Your task to perform on an android device: Open the calendar app, open the side menu, and click the "Day" option Image 0: 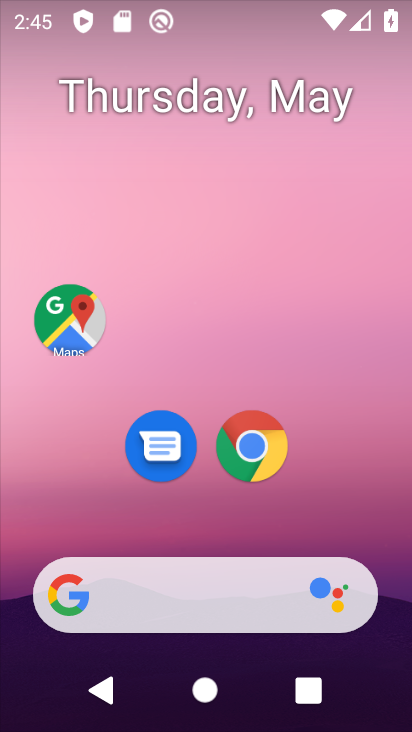
Step 0: drag from (372, 559) to (312, 5)
Your task to perform on an android device: Open the calendar app, open the side menu, and click the "Day" option Image 1: 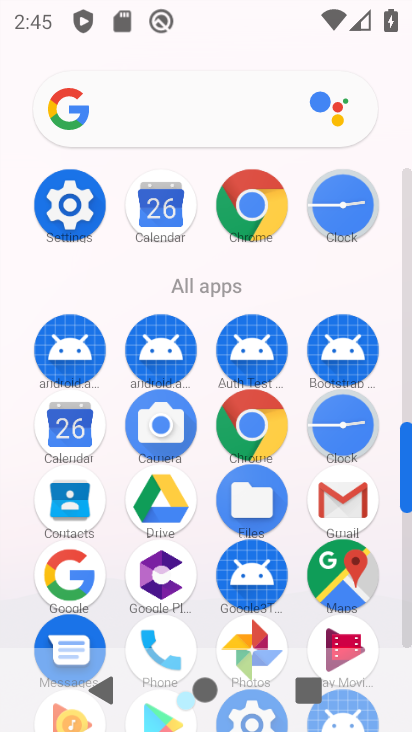
Step 1: click (155, 209)
Your task to perform on an android device: Open the calendar app, open the side menu, and click the "Day" option Image 2: 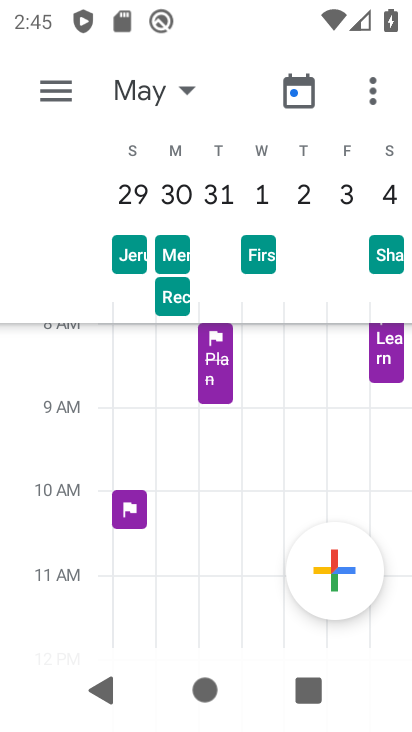
Step 2: click (51, 89)
Your task to perform on an android device: Open the calendar app, open the side menu, and click the "Day" option Image 3: 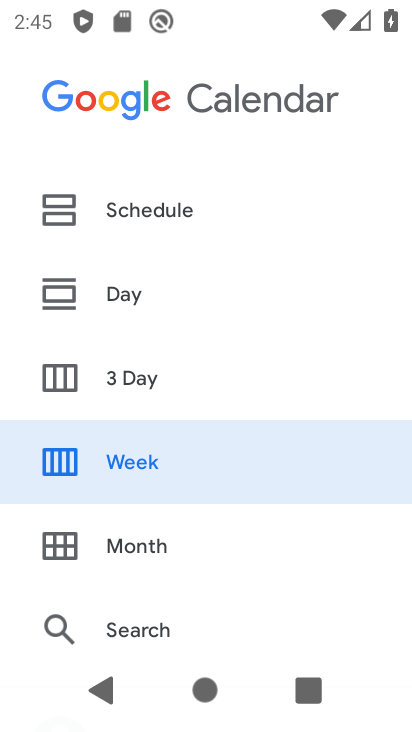
Step 3: click (91, 296)
Your task to perform on an android device: Open the calendar app, open the side menu, and click the "Day" option Image 4: 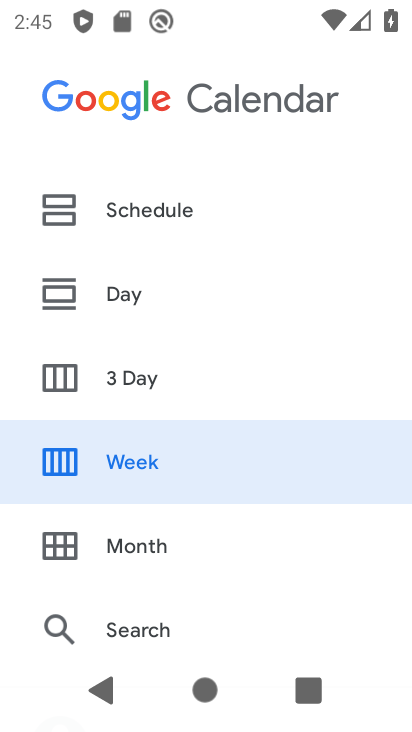
Step 4: click (109, 292)
Your task to perform on an android device: Open the calendar app, open the side menu, and click the "Day" option Image 5: 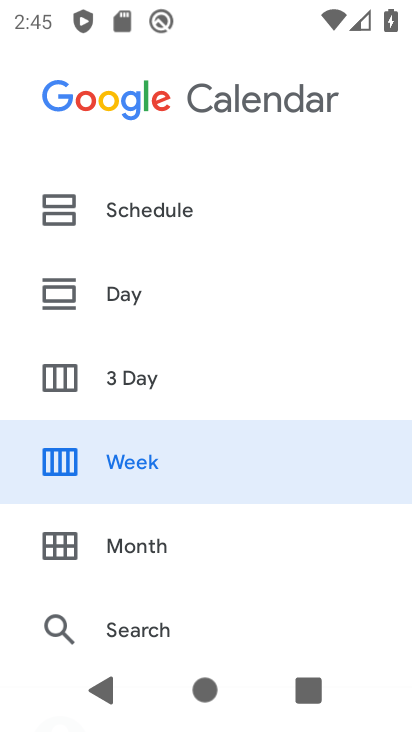
Step 5: click (126, 304)
Your task to perform on an android device: Open the calendar app, open the side menu, and click the "Day" option Image 6: 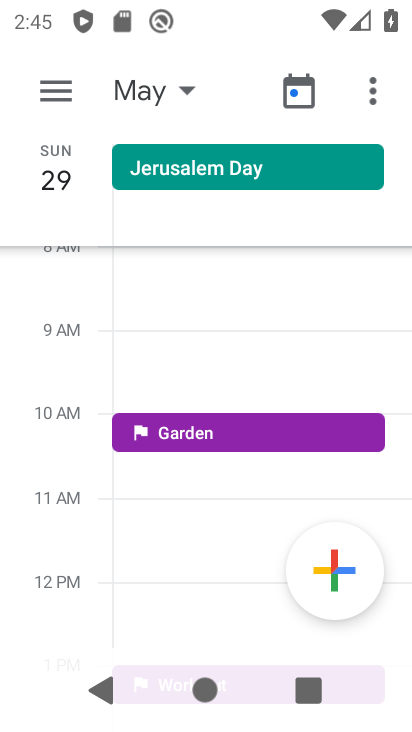
Step 6: task complete